Your task to perform on an android device: star an email in the gmail app Image 0: 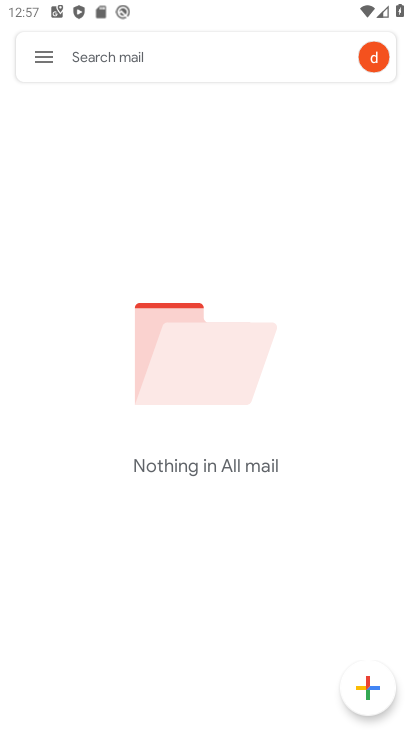
Step 0: drag from (227, 659) to (284, 465)
Your task to perform on an android device: star an email in the gmail app Image 1: 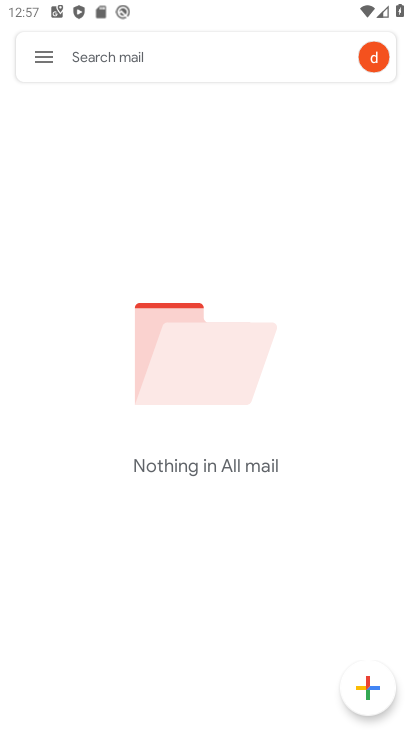
Step 1: press home button
Your task to perform on an android device: star an email in the gmail app Image 2: 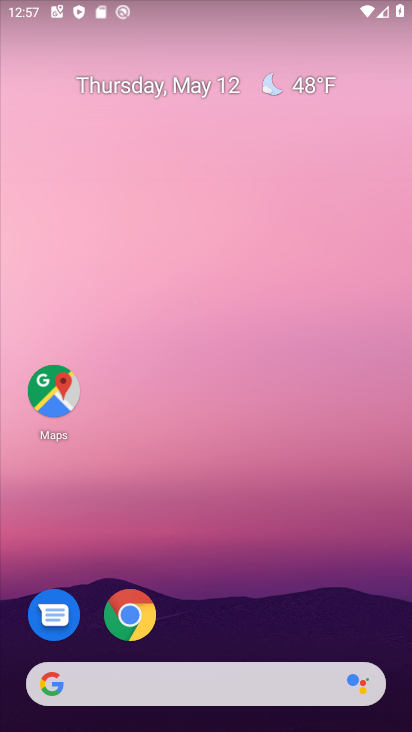
Step 2: drag from (197, 657) to (275, 0)
Your task to perform on an android device: star an email in the gmail app Image 3: 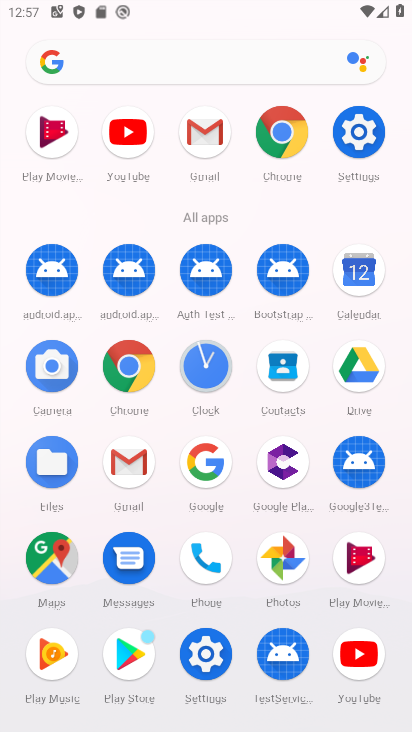
Step 3: click (141, 461)
Your task to perform on an android device: star an email in the gmail app Image 4: 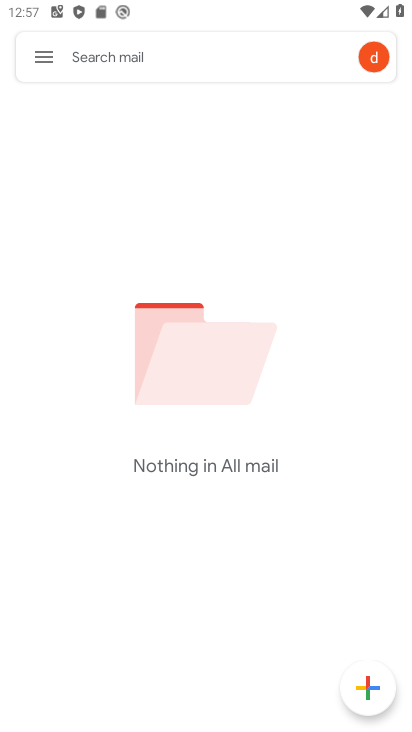
Step 4: click (51, 54)
Your task to perform on an android device: star an email in the gmail app Image 5: 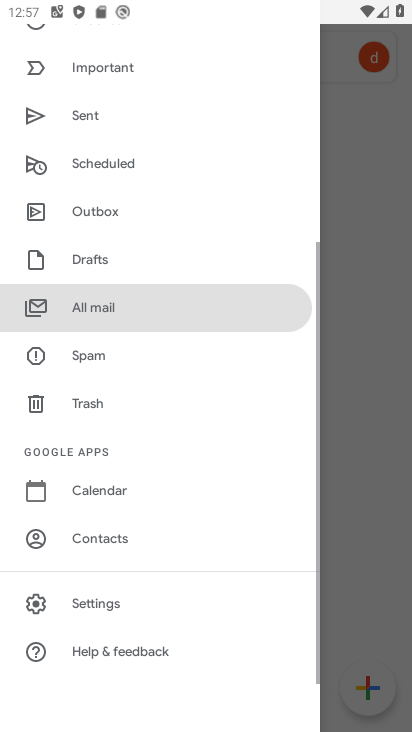
Step 5: drag from (146, 234) to (169, 503)
Your task to perform on an android device: star an email in the gmail app Image 6: 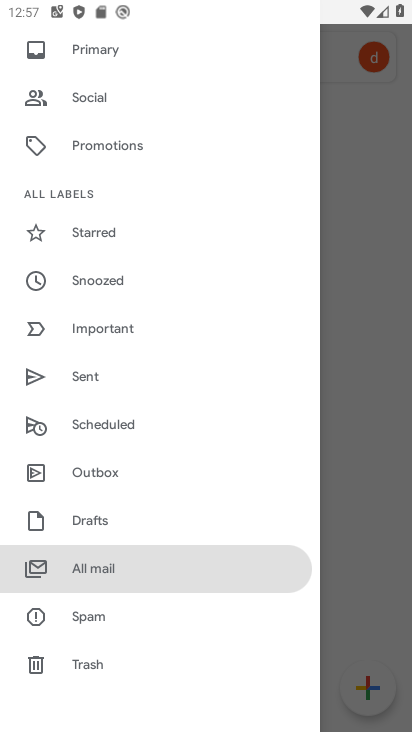
Step 6: click (131, 241)
Your task to perform on an android device: star an email in the gmail app Image 7: 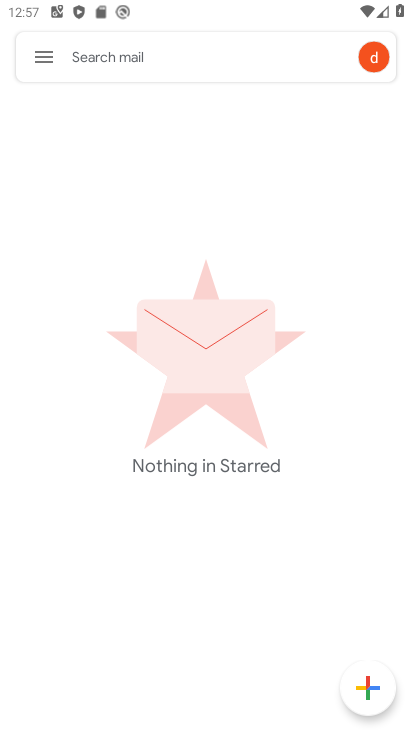
Step 7: task complete